Your task to perform on an android device: change alarm snooze length Image 0: 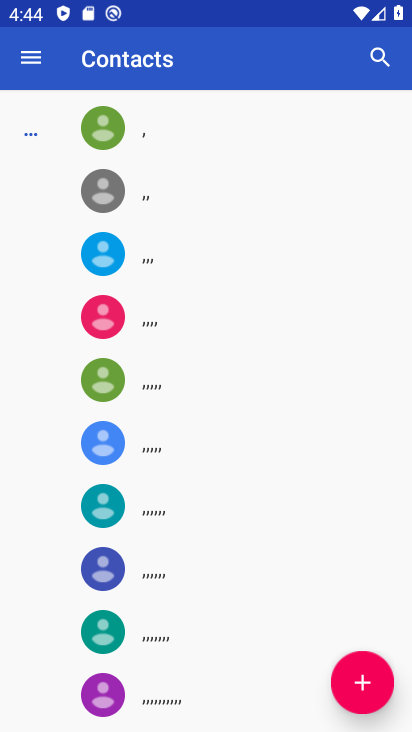
Step 0: press back button
Your task to perform on an android device: change alarm snooze length Image 1: 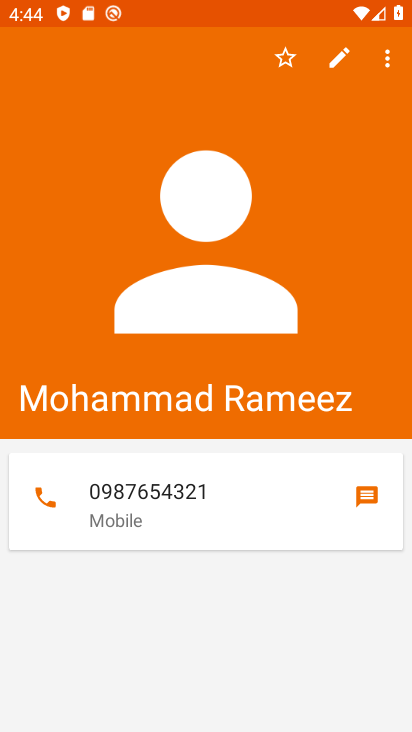
Step 1: press back button
Your task to perform on an android device: change alarm snooze length Image 2: 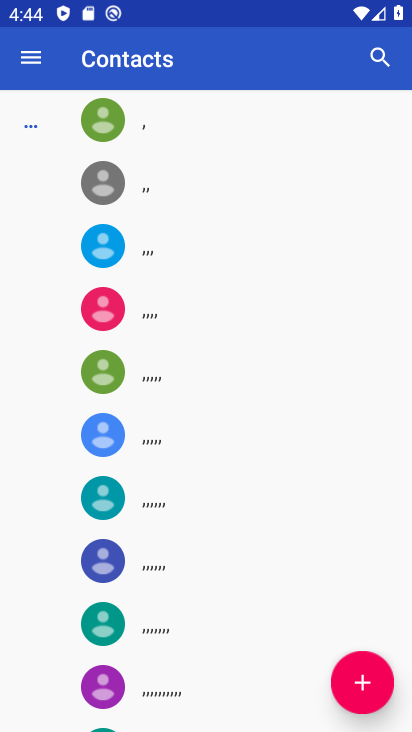
Step 2: press back button
Your task to perform on an android device: change alarm snooze length Image 3: 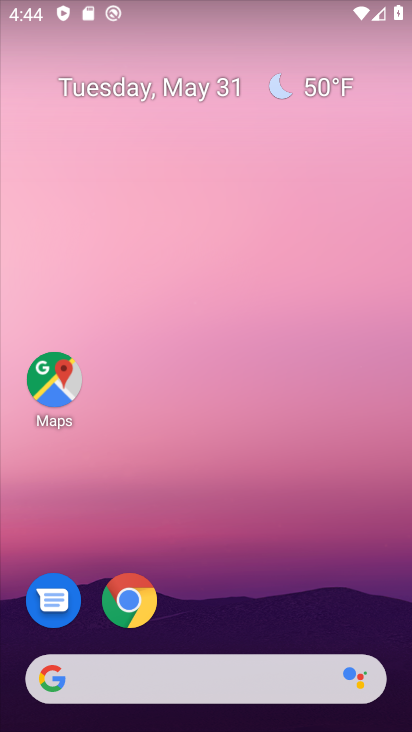
Step 3: drag from (259, 563) to (171, 41)
Your task to perform on an android device: change alarm snooze length Image 4: 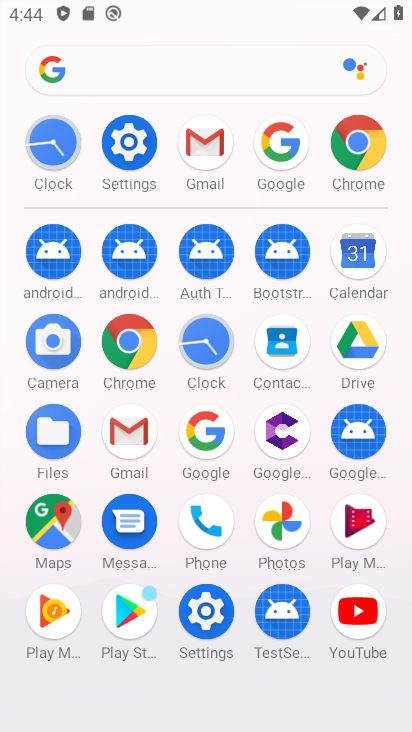
Step 4: click (54, 143)
Your task to perform on an android device: change alarm snooze length Image 5: 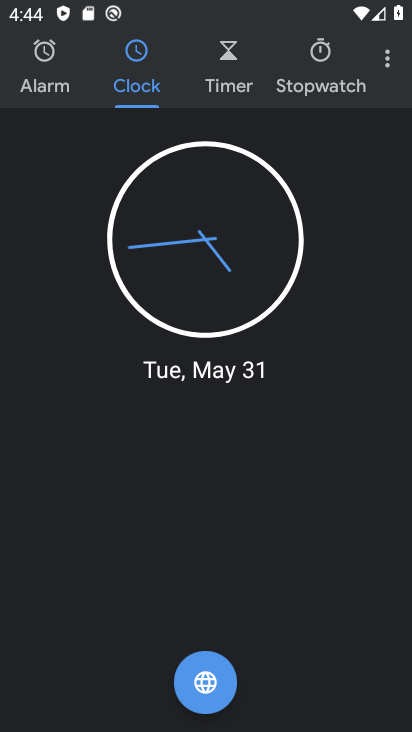
Step 5: click (389, 58)
Your task to perform on an android device: change alarm snooze length Image 6: 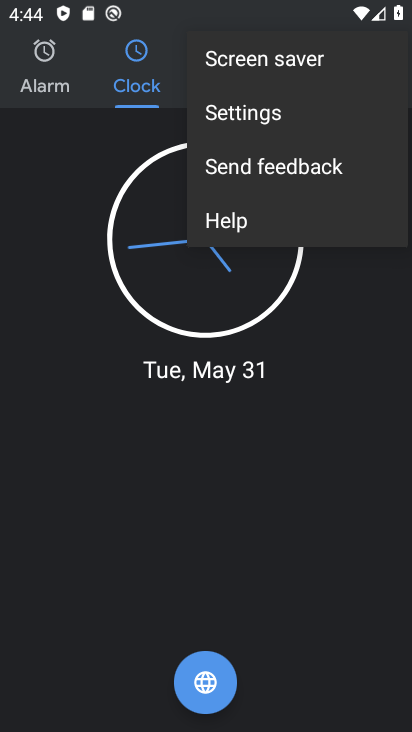
Step 6: click (270, 121)
Your task to perform on an android device: change alarm snooze length Image 7: 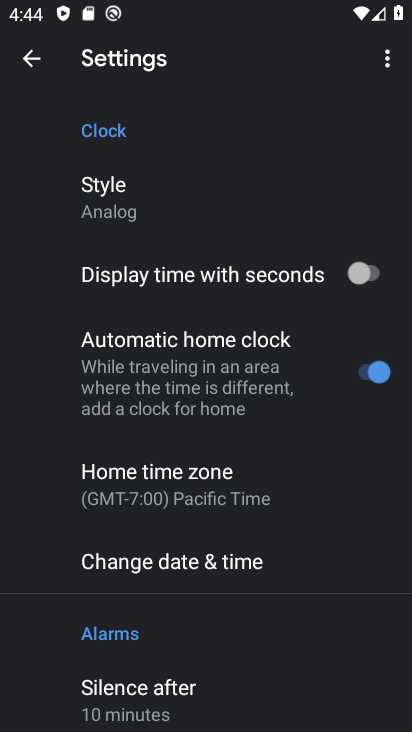
Step 7: drag from (208, 444) to (203, 196)
Your task to perform on an android device: change alarm snooze length Image 8: 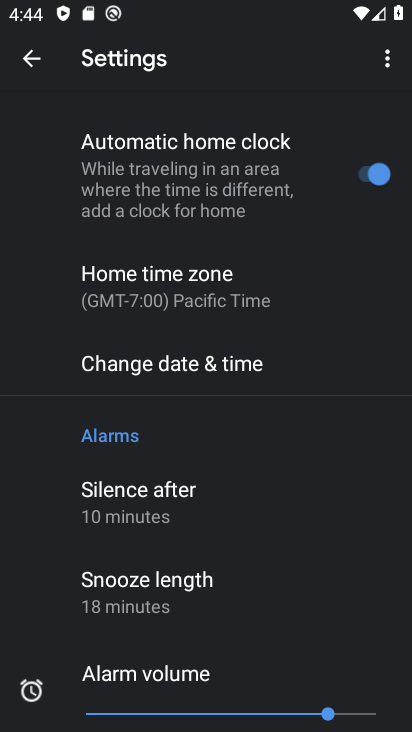
Step 8: click (159, 584)
Your task to perform on an android device: change alarm snooze length Image 9: 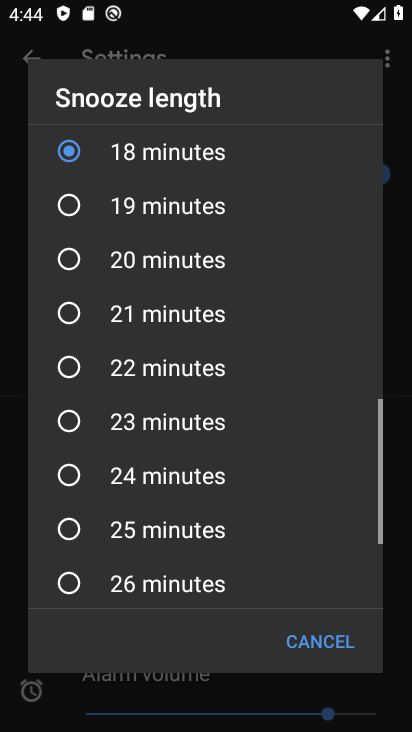
Step 9: drag from (219, 280) to (221, 516)
Your task to perform on an android device: change alarm snooze length Image 10: 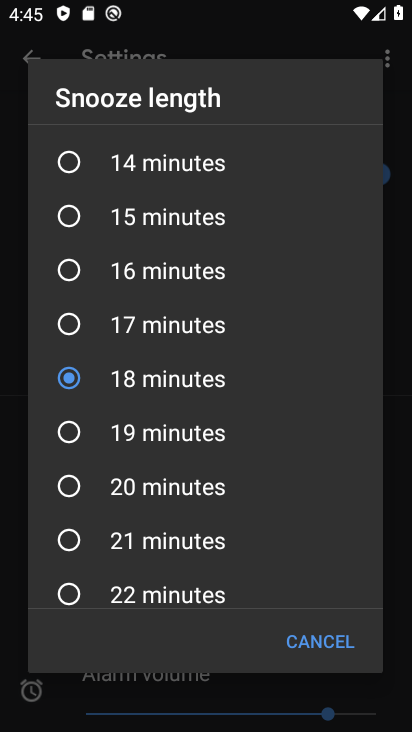
Step 10: drag from (208, 189) to (237, 495)
Your task to perform on an android device: change alarm snooze length Image 11: 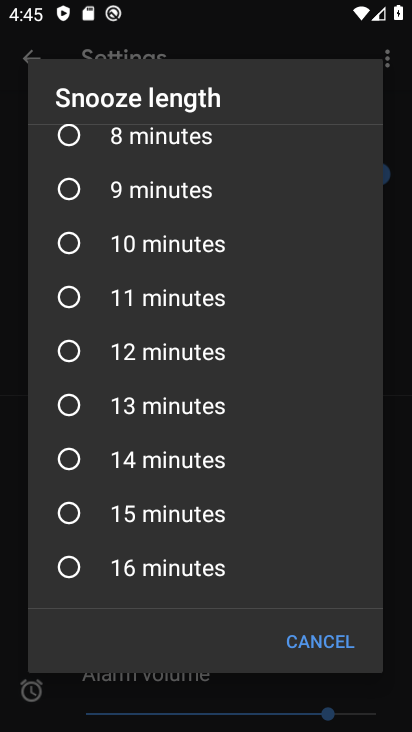
Step 11: drag from (176, 211) to (237, 528)
Your task to perform on an android device: change alarm snooze length Image 12: 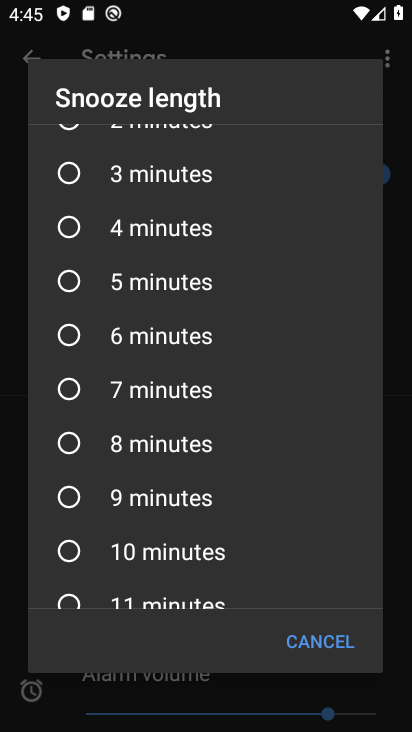
Step 12: click (78, 223)
Your task to perform on an android device: change alarm snooze length Image 13: 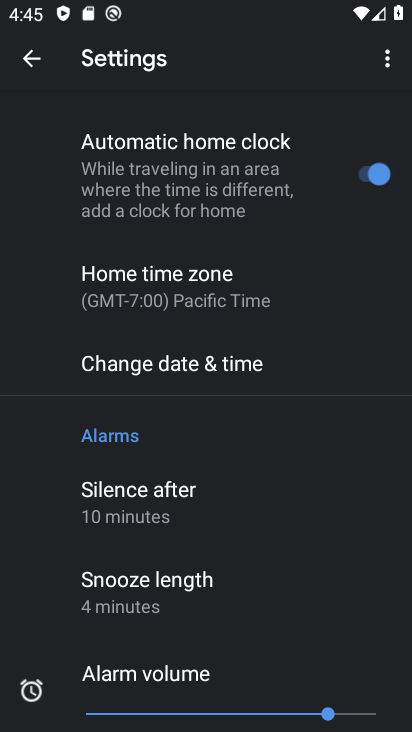
Step 13: task complete